Your task to perform on an android device: snooze an email in the gmail app Image 0: 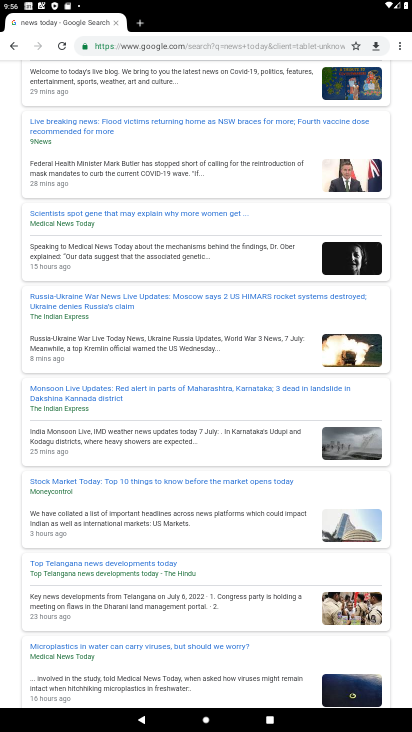
Step 0: press home button
Your task to perform on an android device: snooze an email in the gmail app Image 1: 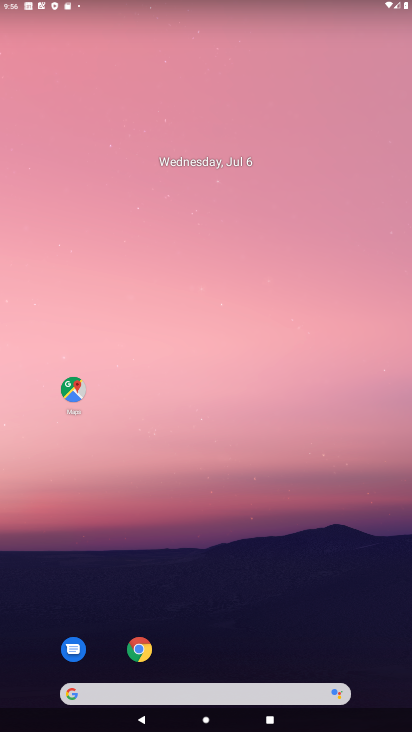
Step 1: drag from (197, 689) to (174, 144)
Your task to perform on an android device: snooze an email in the gmail app Image 2: 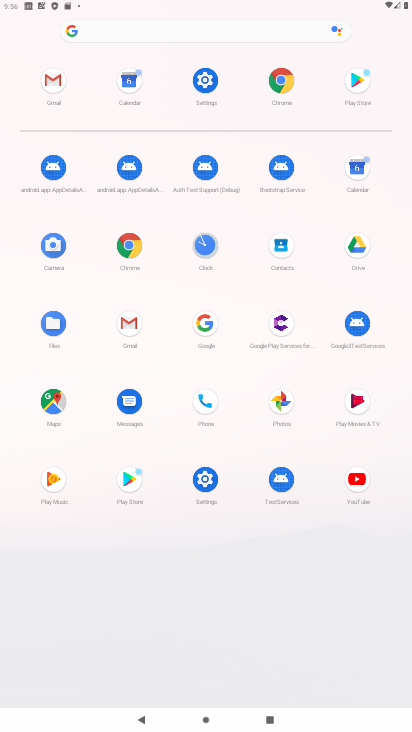
Step 2: click (135, 322)
Your task to perform on an android device: snooze an email in the gmail app Image 3: 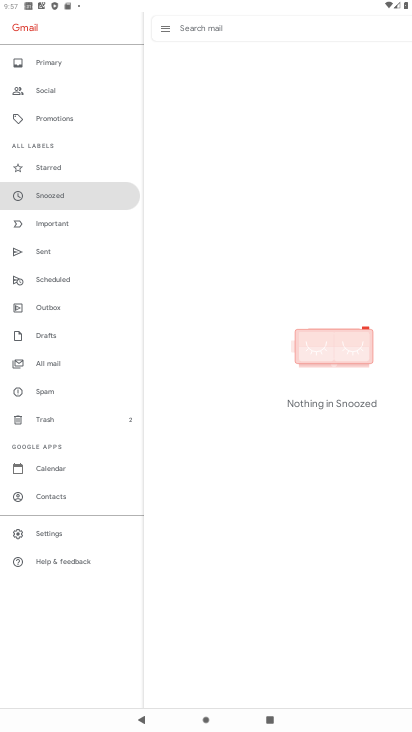
Step 3: click (58, 62)
Your task to perform on an android device: snooze an email in the gmail app Image 4: 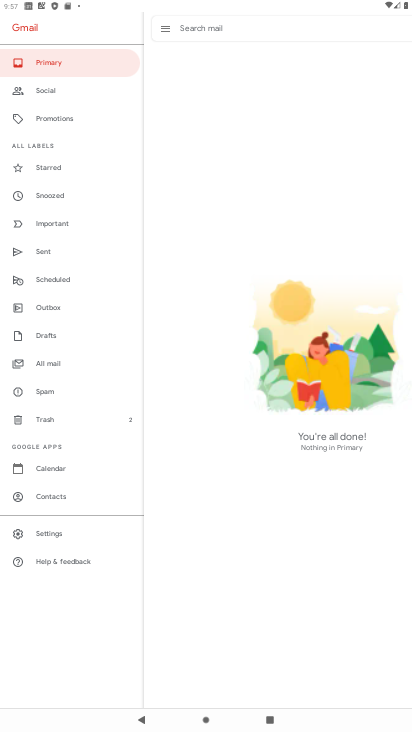
Step 4: click (74, 359)
Your task to perform on an android device: snooze an email in the gmail app Image 5: 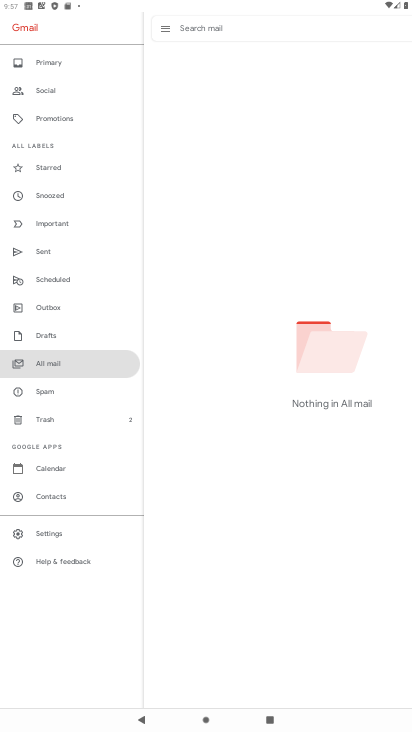
Step 5: task complete